Your task to perform on an android device: Search for vegetarian restaurants on Maps Image 0: 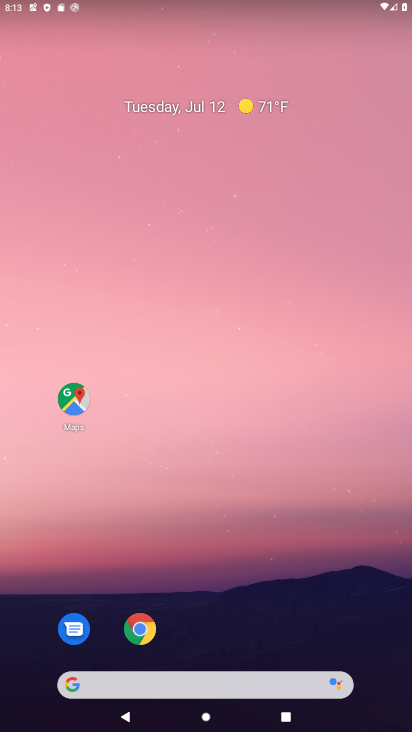
Step 0: click (62, 398)
Your task to perform on an android device: Search for vegetarian restaurants on Maps Image 1: 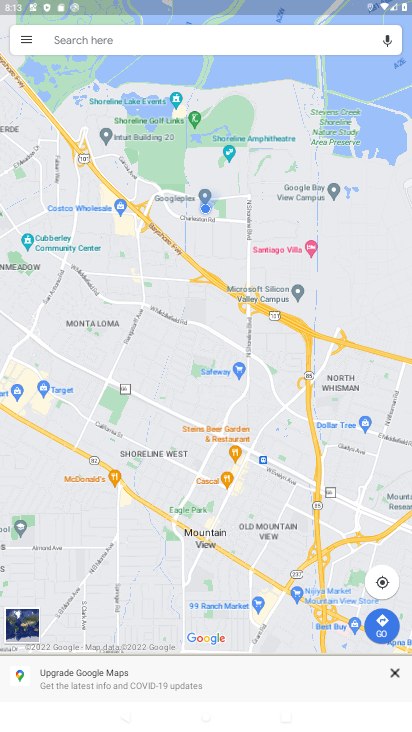
Step 1: click (216, 43)
Your task to perform on an android device: Search for vegetarian restaurants on Maps Image 2: 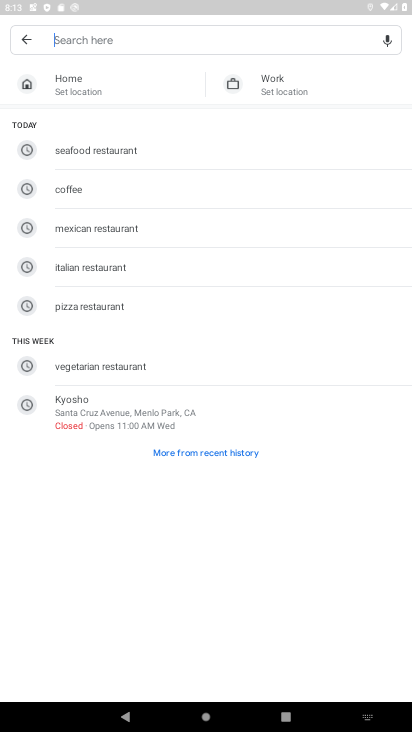
Step 2: type "vegetarian restaurants"
Your task to perform on an android device: Search for vegetarian restaurants on Maps Image 3: 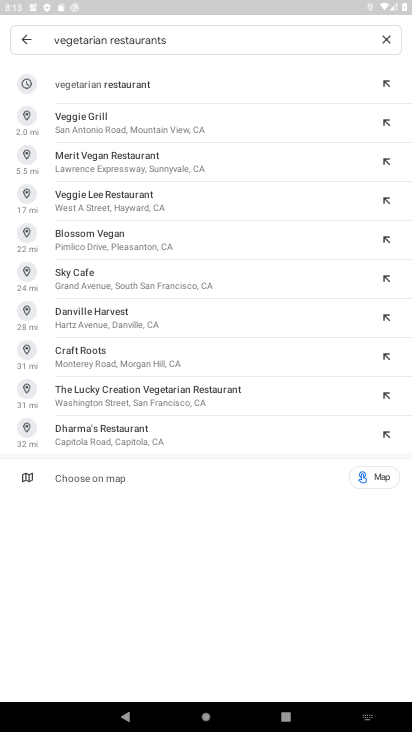
Step 3: click (115, 82)
Your task to perform on an android device: Search for vegetarian restaurants on Maps Image 4: 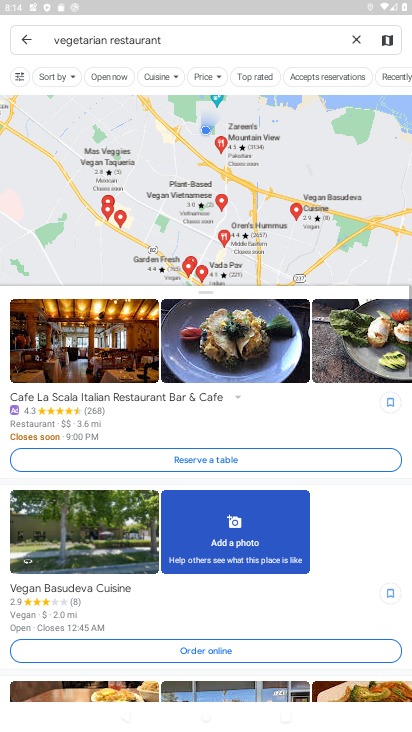
Step 4: task complete